Your task to perform on an android device: change timer sound Image 0: 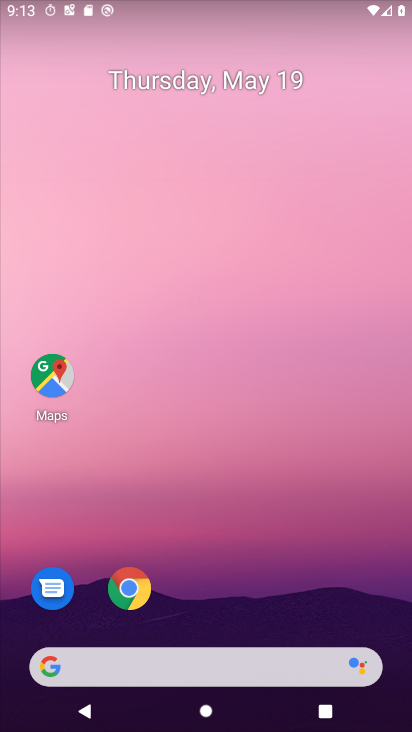
Step 0: press home button
Your task to perform on an android device: change timer sound Image 1: 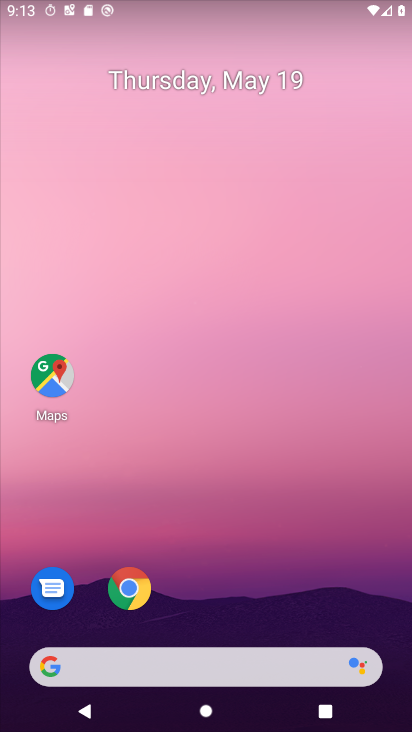
Step 1: drag from (221, 671) to (385, 135)
Your task to perform on an android device: change timer sound Image 2: 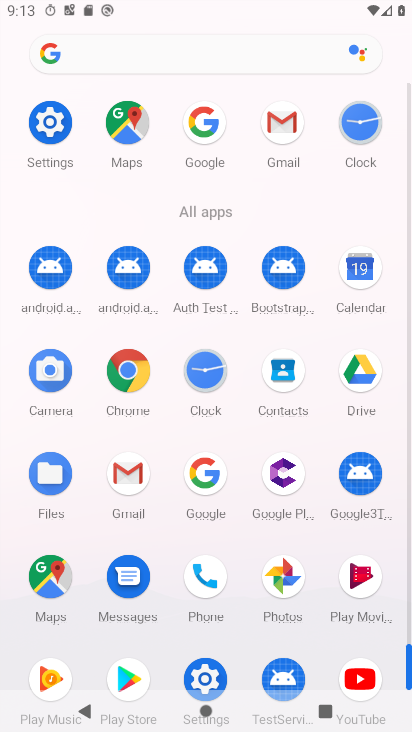
Step 2: click (361, 125)
Your task to perform on an android device: change timer sound Image 3: 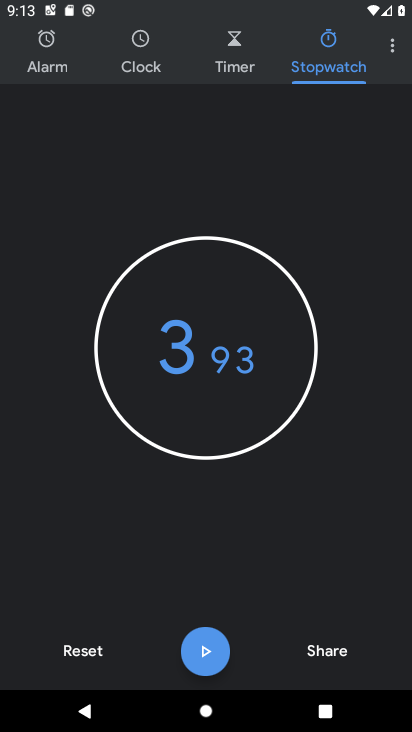
Step 3: click (391, 45)
Your task to perform on an android device: change timer sound Image 4: 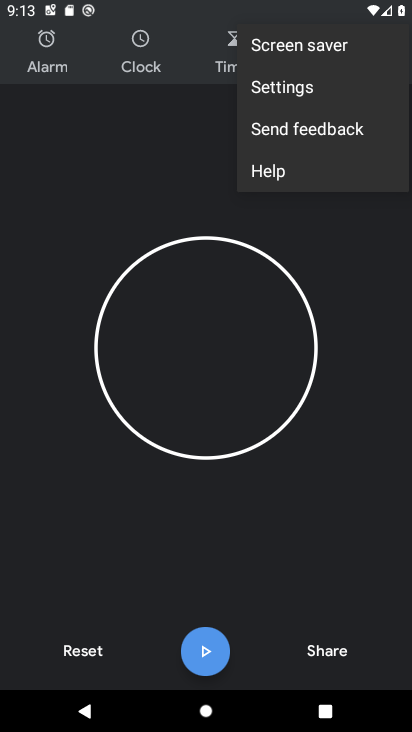
Step 4: click (286, 90)
Your task to perform on an android device: change timer sound Image 5: 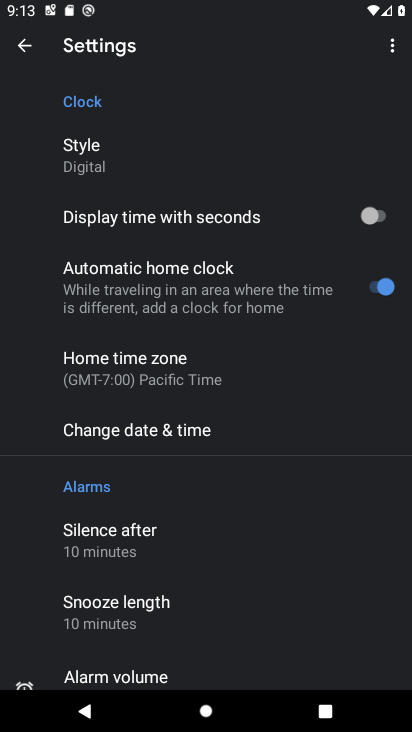
Step 5: drag from (229, 499) to (339, 62)
Your task to perform on an android device: change timer sound Image 6: 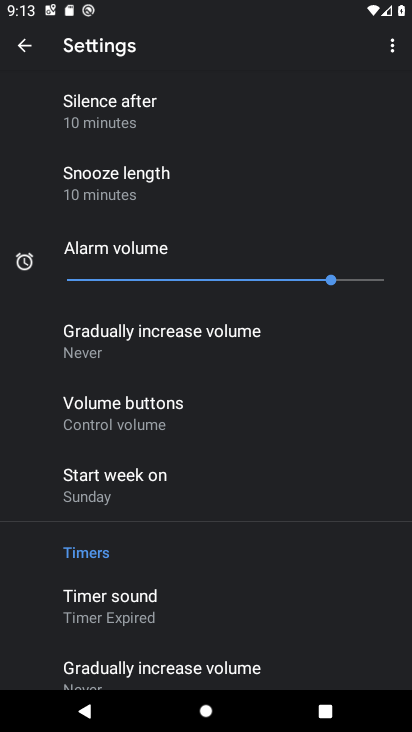
Step 6: click (141, 598)
Your task to perform on an android device: change timer sound Image 7: 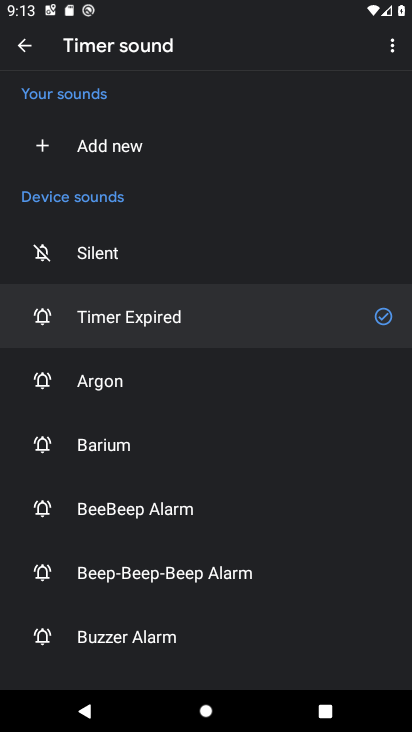
Step 7: click (107, 448)
Your task to perform on an android device: change timer sound Image 8: 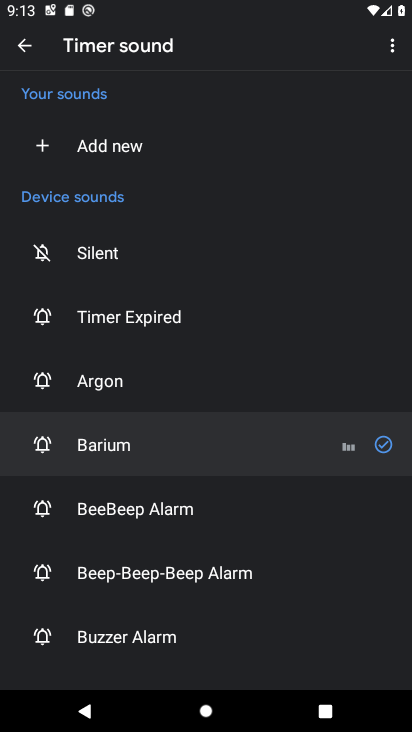
Step 8: task complete